Your task to perform on an android device: Find coffee shops on Maps Image 0: 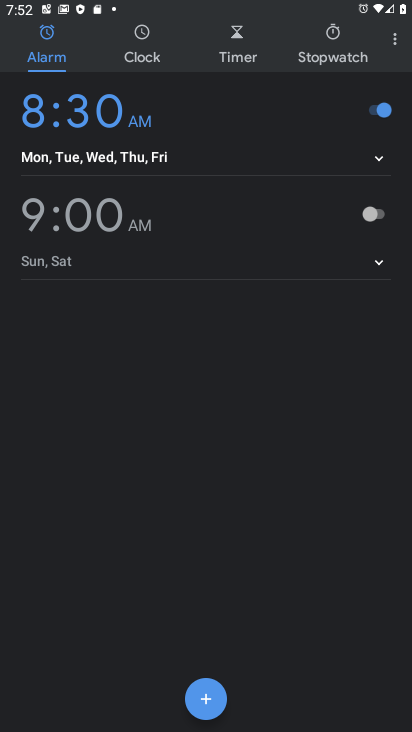
Step 0: press home button
Your task to perform on an android device: Find coffee shops on Maps Image 1: 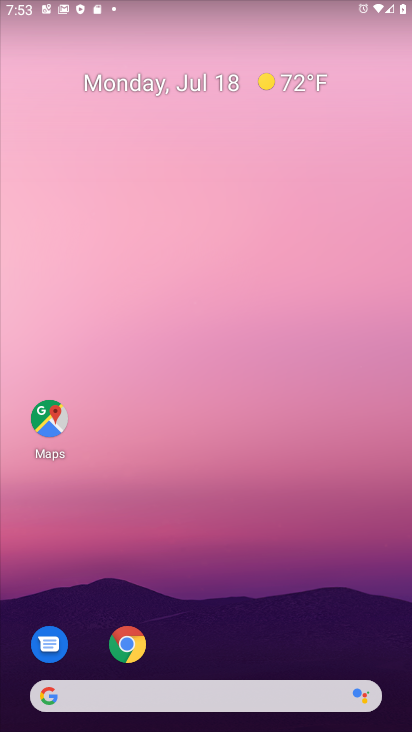
Step 1: drag from (302, 623) to (175, 25)
Your task to perform on an android device: Find coffee shops on Maps Image 2: 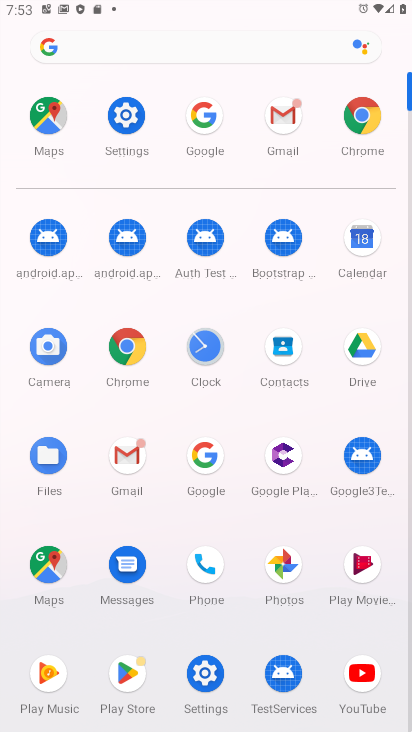
Step 2: click (50, 569)
Your task to perform on an android device: Find coffee shops on Maps Image 3: 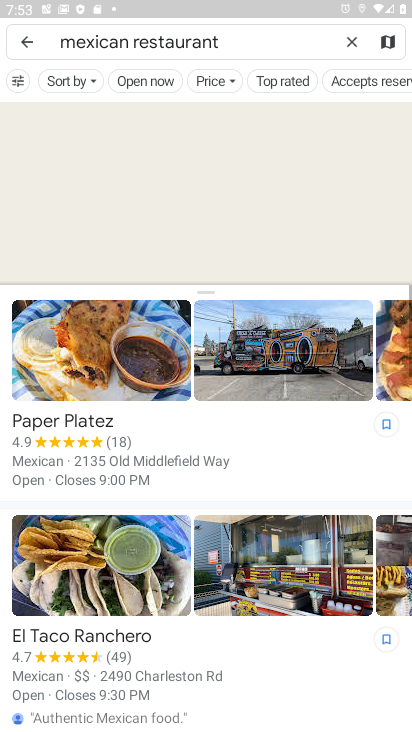
Step 3: click (350, 40)
Your task to perform on an android device: Find coffee shops on Maps Image 4: 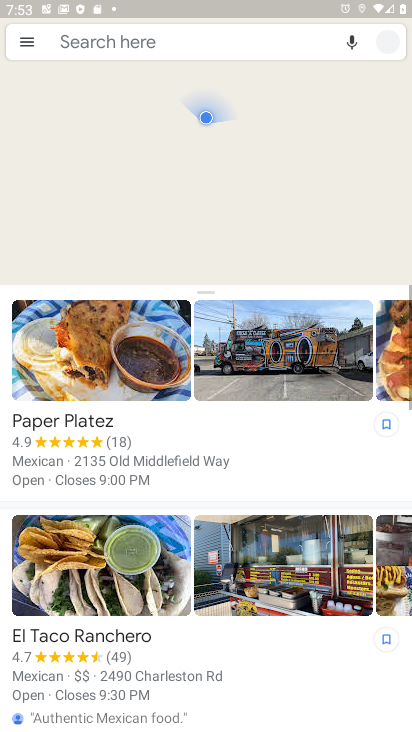
Step 4: click (176, 43)
Your task to perform on an android device: Find coffee shops on Maps Image 5: 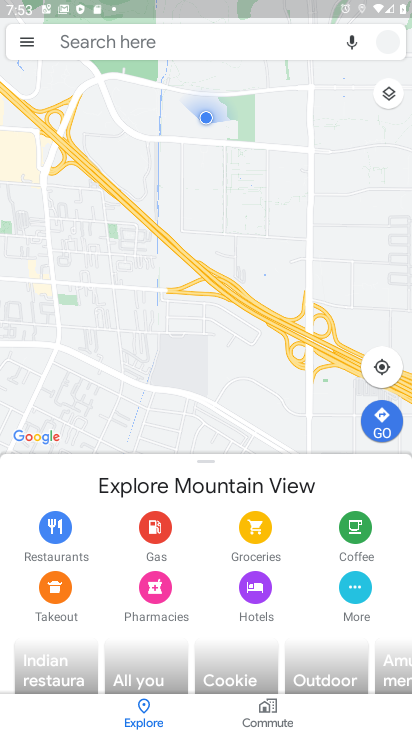
Step 5: click (126, 42)
Your task to perform on an android device: Find coffee shops on Maps Image 6: 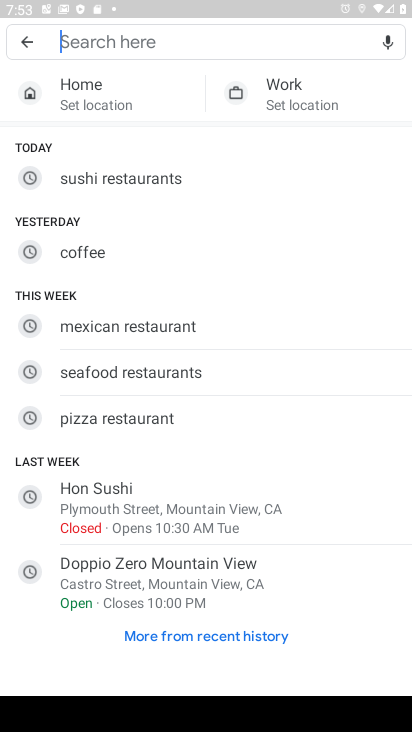
Step 6: click (71, 251)
Your task to perform on an android device: Find coffee shops on Maps Image 7: 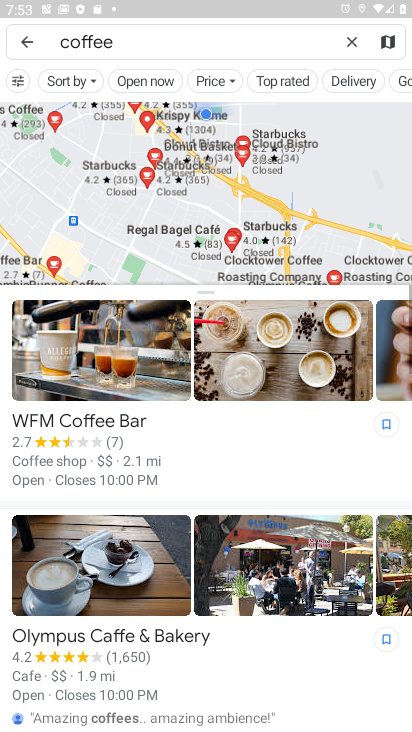
Step 7: task complete